Your task to perform on an android device: turn off improve location accuracy Image 0: 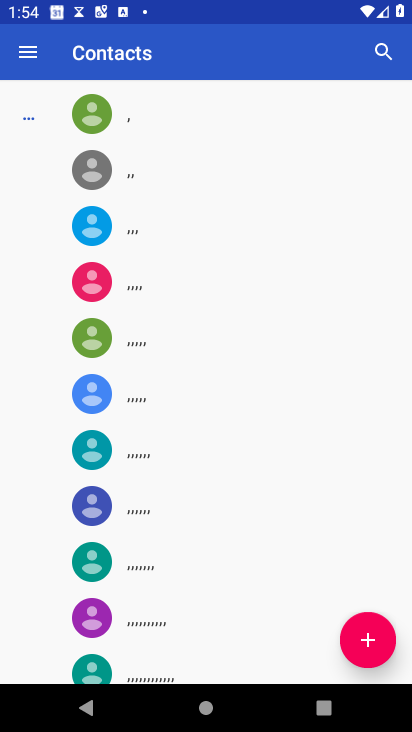
Step 0: press home button
Your task to perform on an android device: turn off improve location accuracy Image 1: 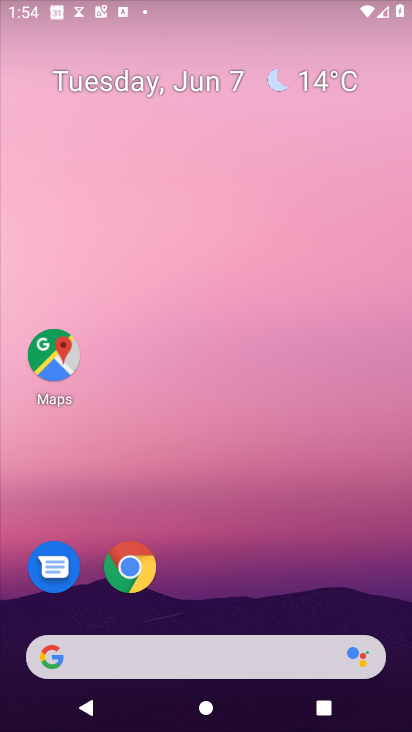
Step 1: drag from (224, 668) to (225, 13)
Your task to perform on an android device: turn off improve location accuracy Image 2: 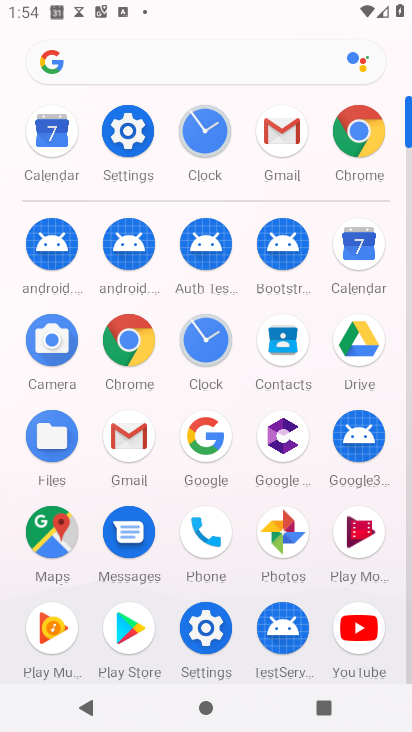
Step 2: click (143, 127)
Your task to perform on an android device: turn off improve location accuracy Image 3: 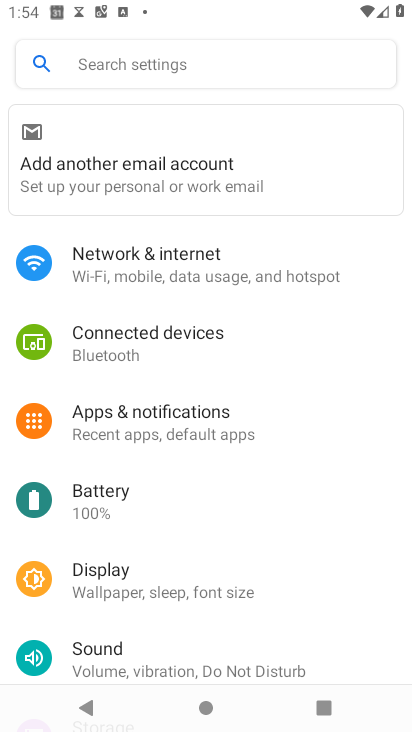
Step 3: drag from (142, 628) to (180, 75)
Your task to perform on an android device: turn off improve location accuracy Image 4: 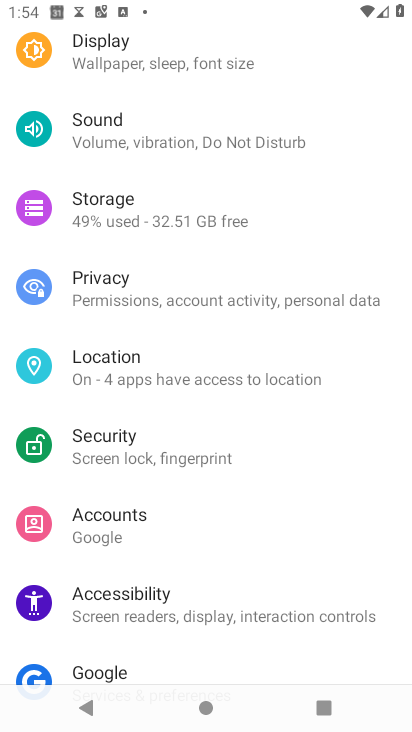
Step 4: click (160, 364)
Your task to perform on an android device: turn off improve location accuracy Image 5: 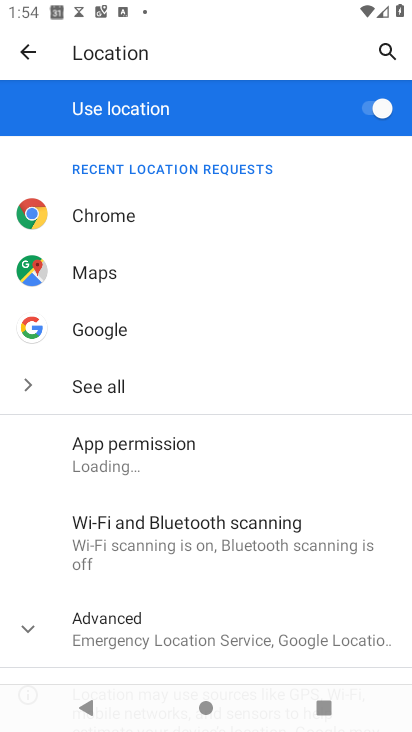
Step 5: click (152, 630)
Your task to perform on an android device: turn off improve location accuracy Image 6: 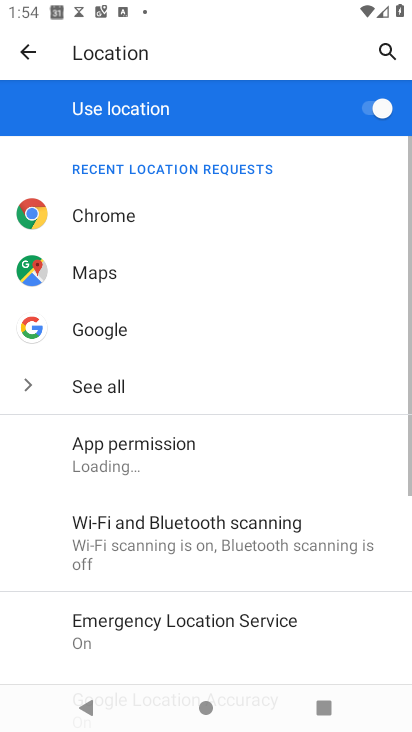
Step 6: drag from (195, 602) to (204, 158)
Your task to perform on an android device: turn off improve location accuracy Image 7: 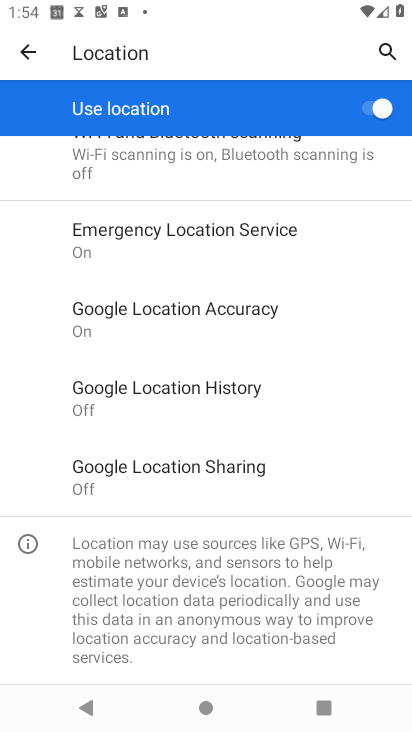
Step 7: click (233, 303)
Your task to perform on an android device: turn off improve location accuracy Image 8: 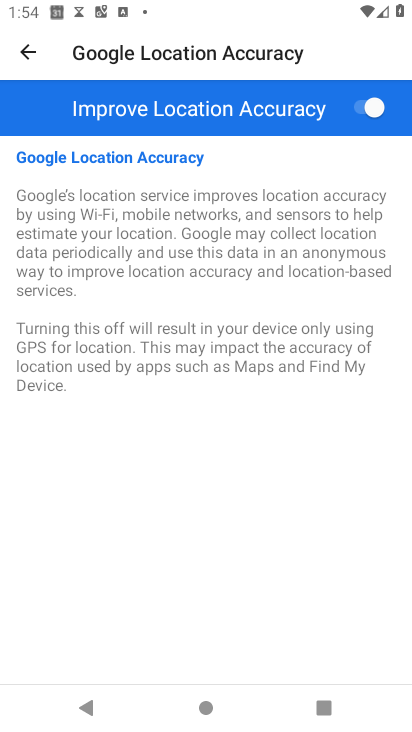
Step 8: click (357, 114)
Your task to perform on an android device: turn off improve location accuracy Image 9: 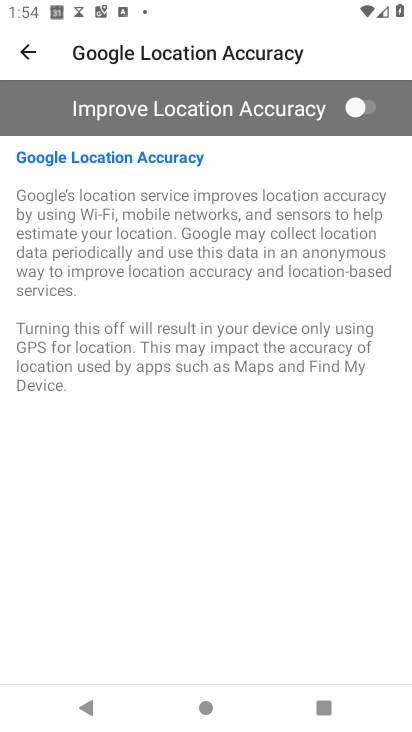
Step 9: task complete